Your task to perform on an android device: What's the weather? Image 0: 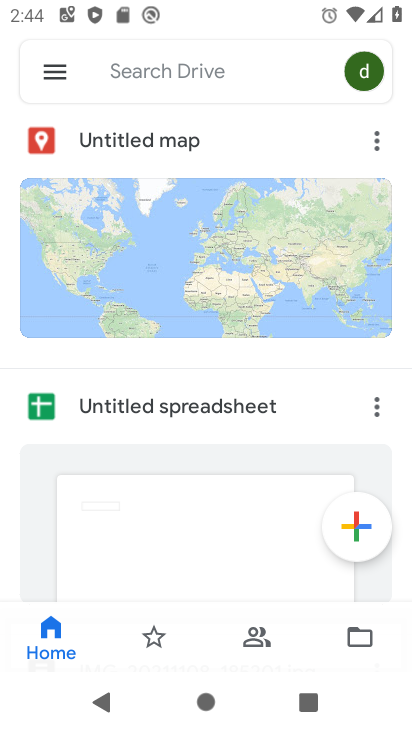
Step 0: press home button
Your task to perform on an android device: What's the weather? Image 1: 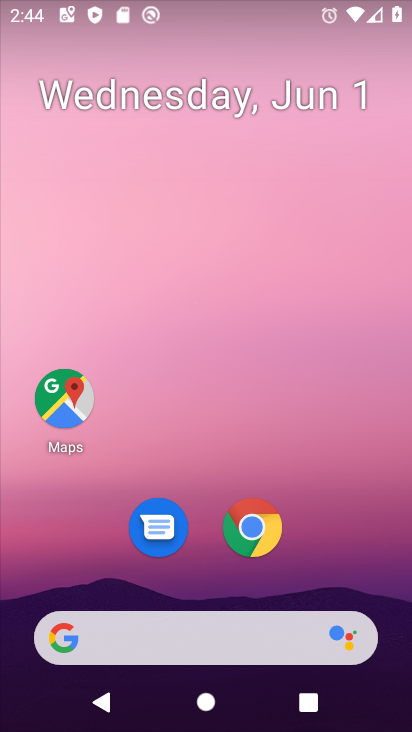
Step 1: drag from (336, 557) to (306, 163)
Your task to perform on an android device: What's the weather? Image 2: 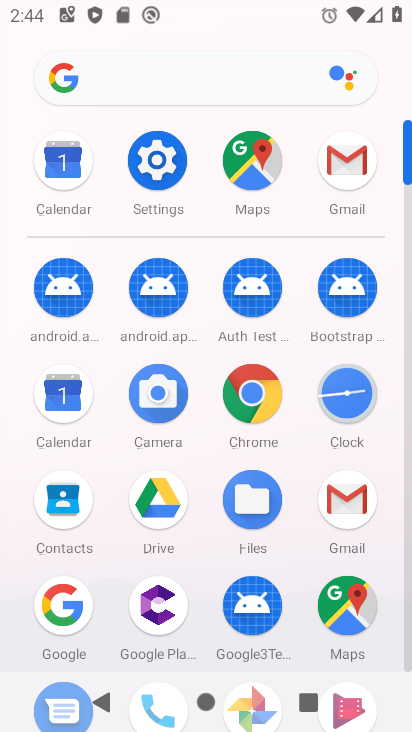
Step 2: click (58, 602)
Your task to perform on an android device: What's the weather? Image 3: 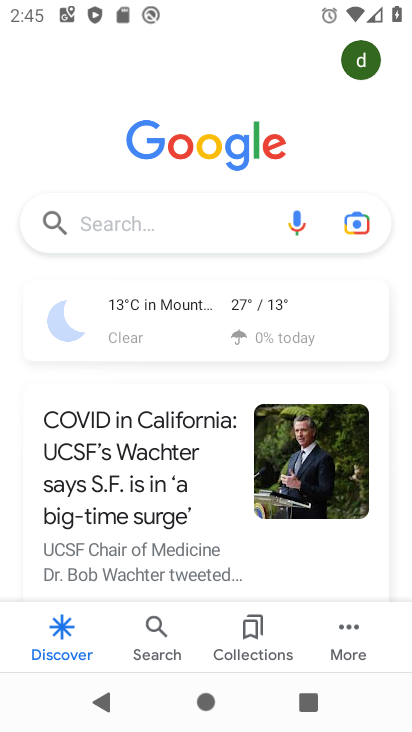
Step 3: click (207, 319)
Your task to perform on an android device: What's the weather? Image 4: 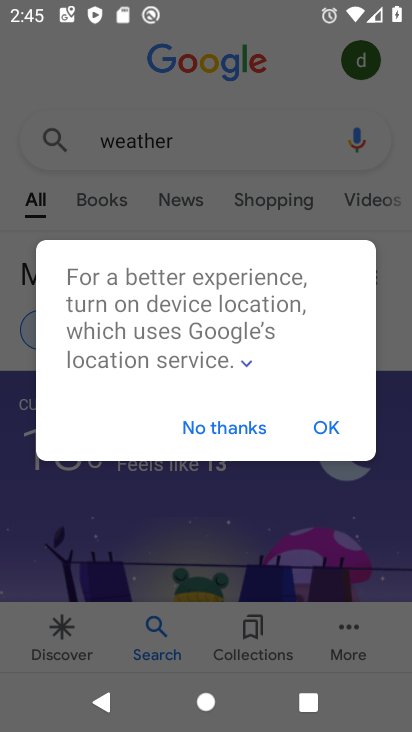
Step 4: click (248, 430)
Your task to perform on an android device: What's the weather? Image 5: 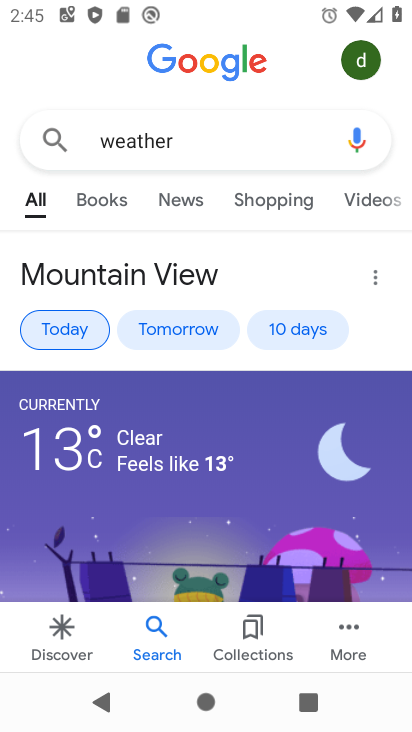
Step 5: task complete